Your task to perform on an android device: see tabs open on other devices in the chrome app Image 0: 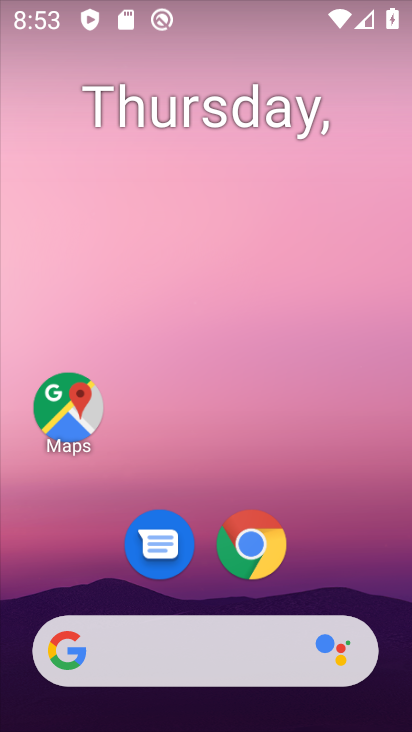
Step 0: click (255, 534)
Your task to perform on an android device: see tabs open on other devices in the chrome app Image 1: 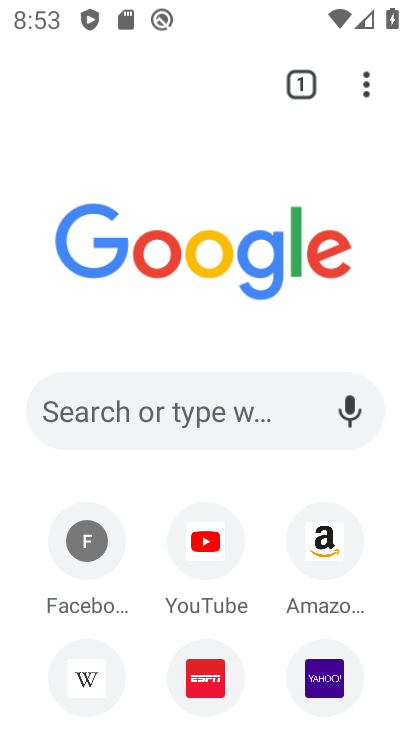
Step 1: click (363, 78)
Your task to perform on an android device: see tabs open on other devices in the chrome app Image 2: 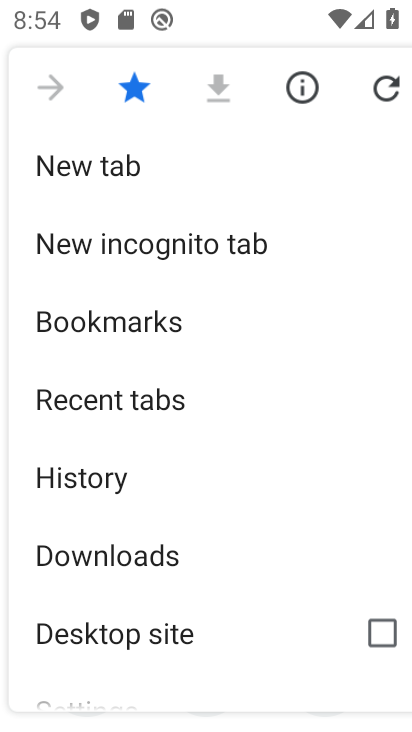
Step 2: click (153, 404)
Your task to perform on an android device: see tabs open on other devices in the chrome app Image 3: 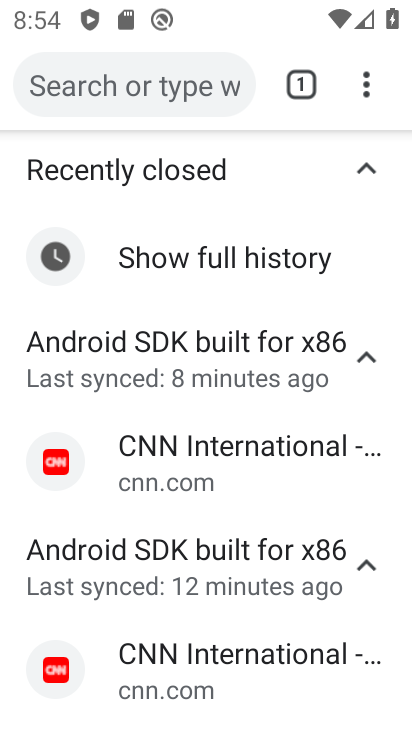
Step 3: task complete